Your task to perform on an android device: change the upload size in google photos Image 0: 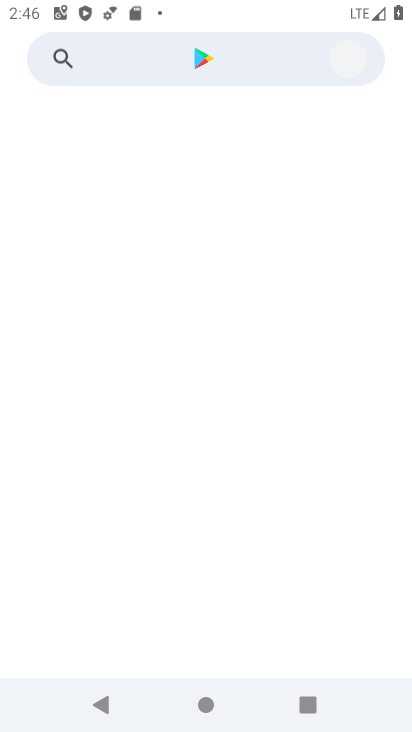
Step 0: press home button
Your task to perform on an android device: change the upload size in google photos Image 1: 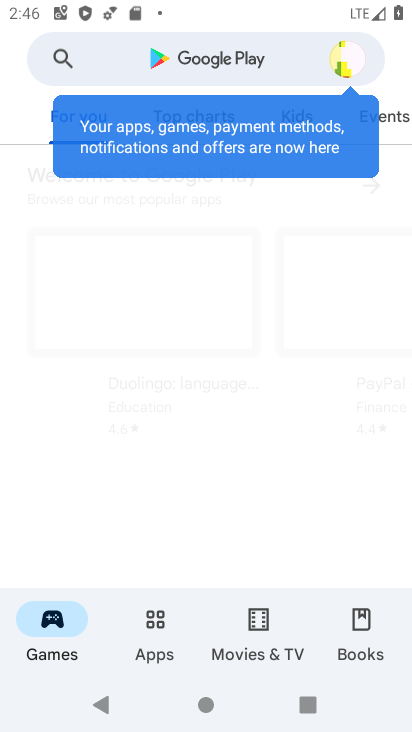
Step 1: press home button
Your task to perform on an android device: change the upload size in google photos Image 2: 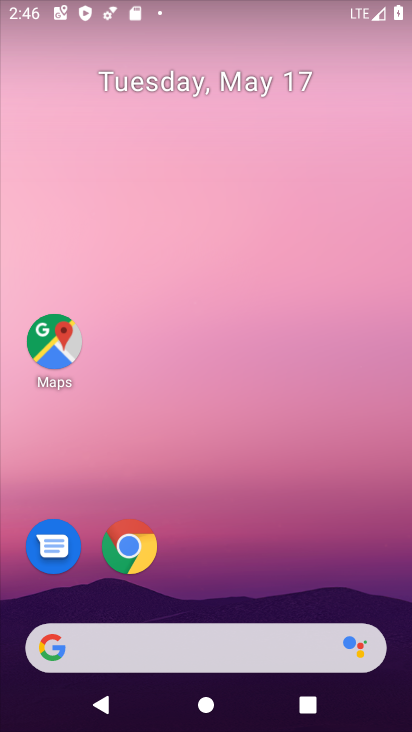
Step 2: drag from (246, 564) to (297, 69)
Your task to perform on an android device: change the upload size in google photos Image 3: 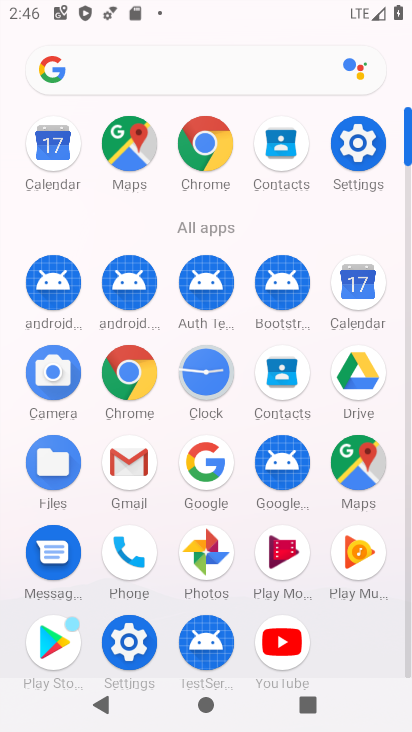
Step 3: click (181, 566)
Your task to perform on an android device: change the upload size in google photos Image 4: 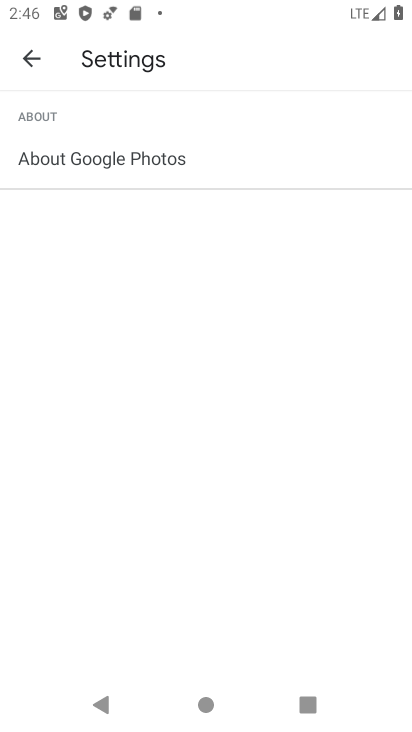
Step 4: click (36, 46)
Your task to perform on an android device: change the upload size in google photos Image 5: 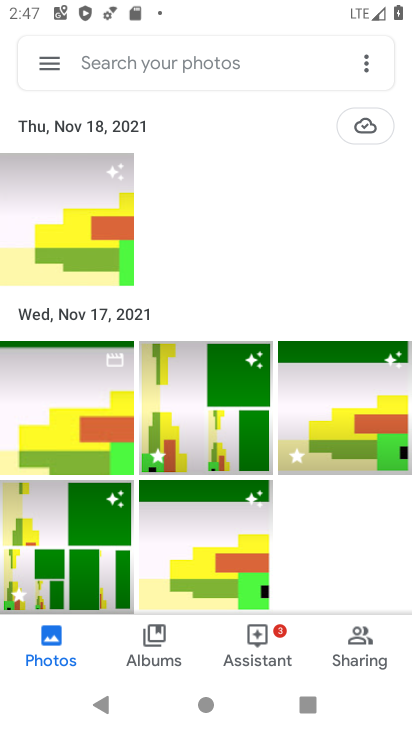
Step 5: click (51, 58)
Your task to perform on an android device: change the upload size in google photos Image 6: 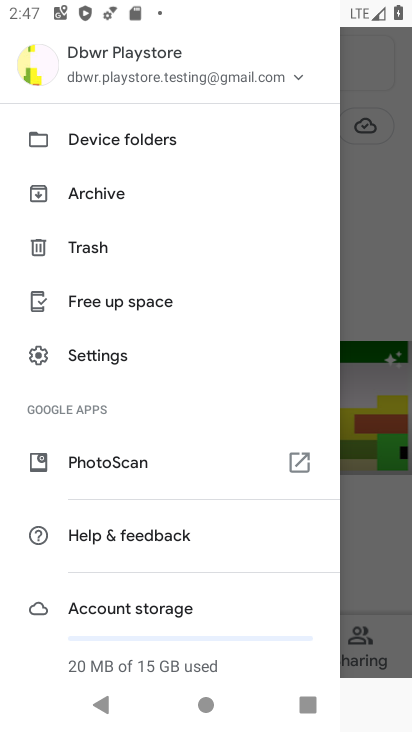
Step 6: click (105, 366)
Your task to perform on an android device: change the upload size in google photos Image 7: 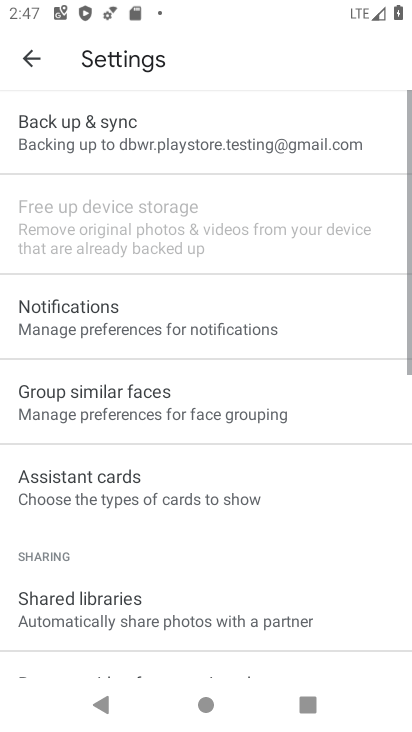
Step 7: click (128, 163)
Your task to perform on an android device: change the upload size in google photos Image 8: 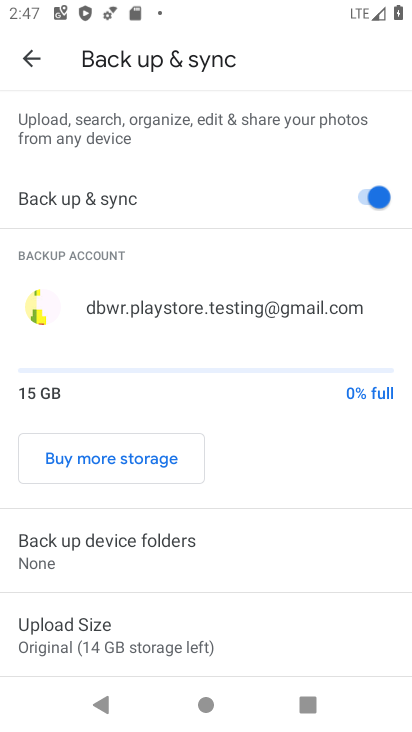
Step 8: click (106, 639)
Your task to perform on an android device: change the upload size in google photos Image 9: 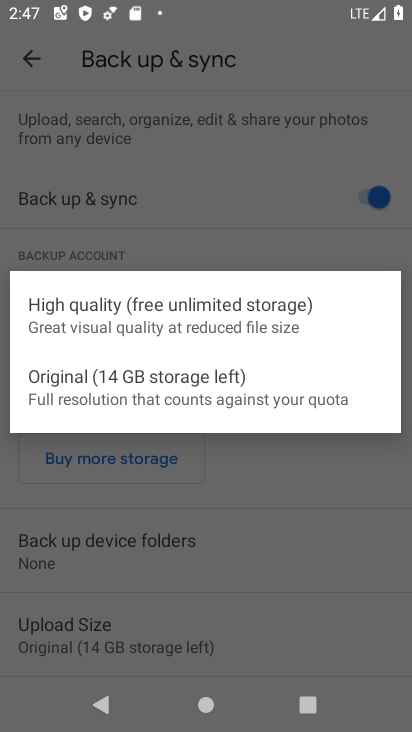
Step 9: click (80, 328)
Your task to perform on an android device: change the upload size in google photos Image 10: 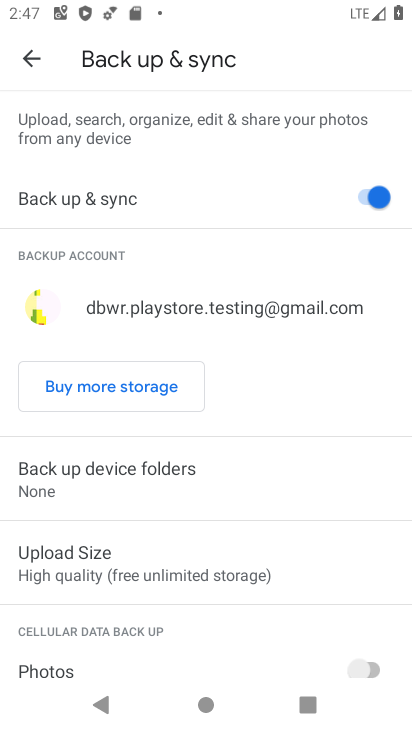
Step 10: task complete